Your task to perform on an android device: open wifi settings Image 0: 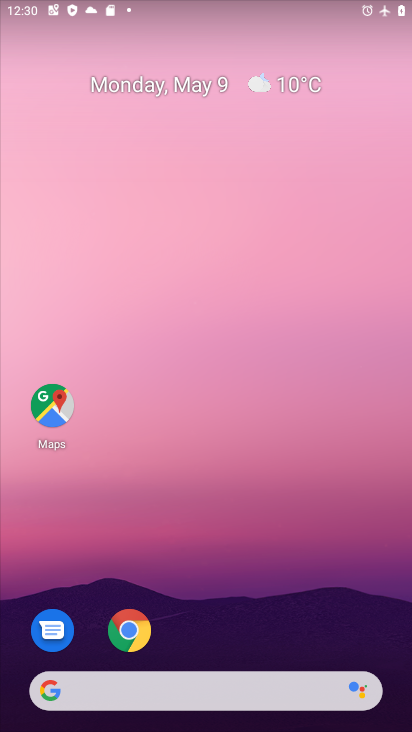
Step 0: drag from (329, 610) to (312, 102)
Your task to perform on an android device: open wifi settings Image 1: 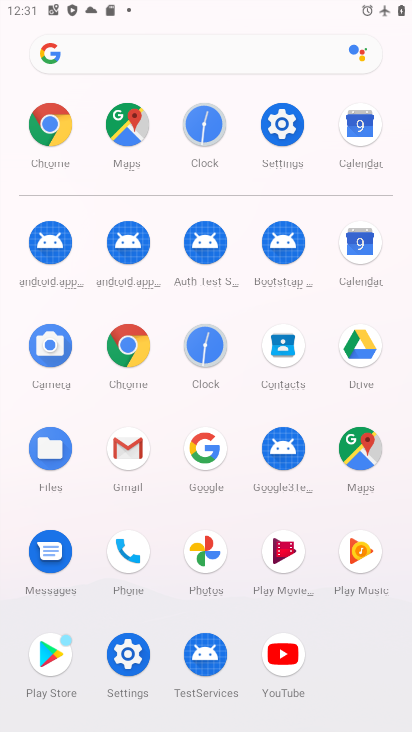
Step 1: click (132, 656)
Your task to perform on an android device: open wifi settings Image 2: 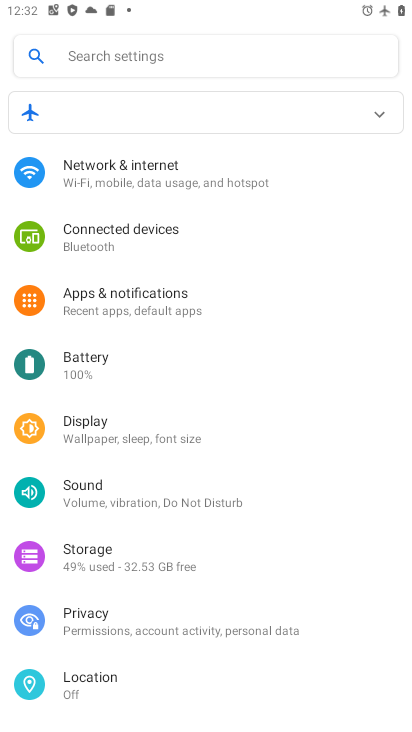
Step 2: click (174, 190)
Your task to perform on an android device: open wifi settings Image 3: 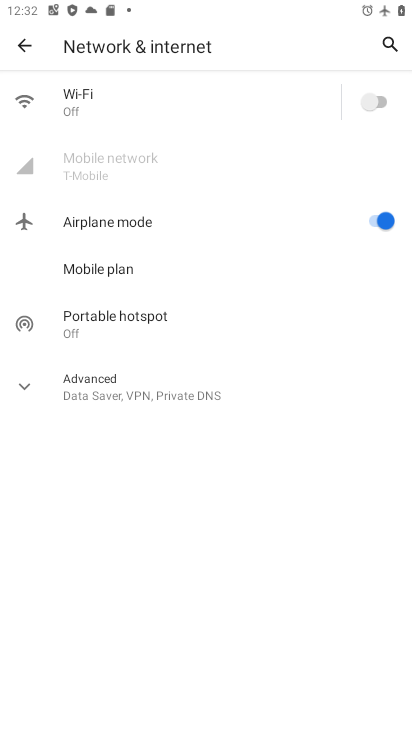
Step 3: click (192, 104)
Your task to perform on an android device: open wifi settings Image 4: 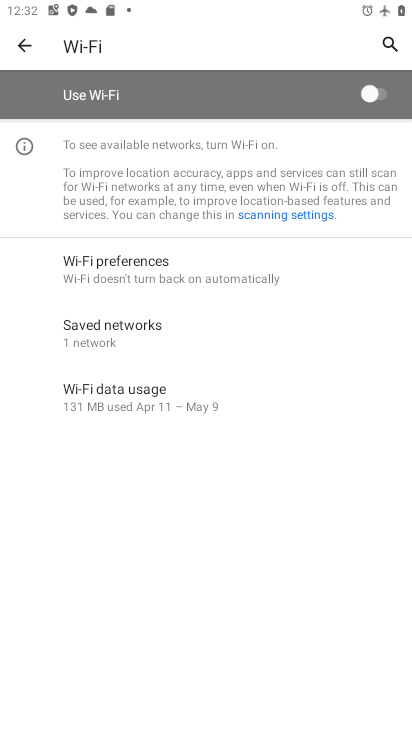
Step 4: task complete